Your task to perform on an android device: turn off location Image 0: 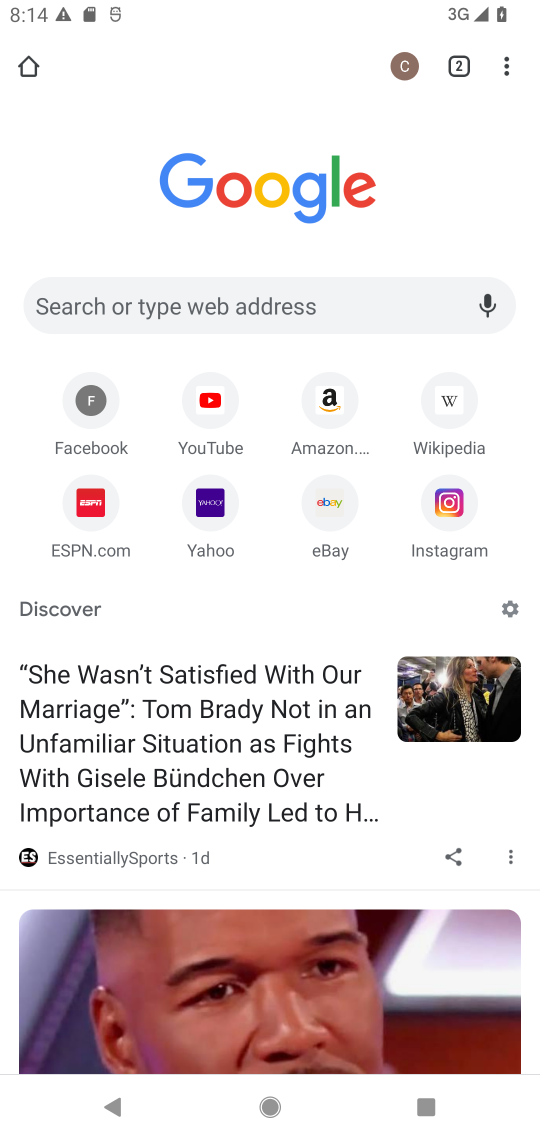
Step 0: press home button
Your task to perform on an android device: turn off location Image 1: 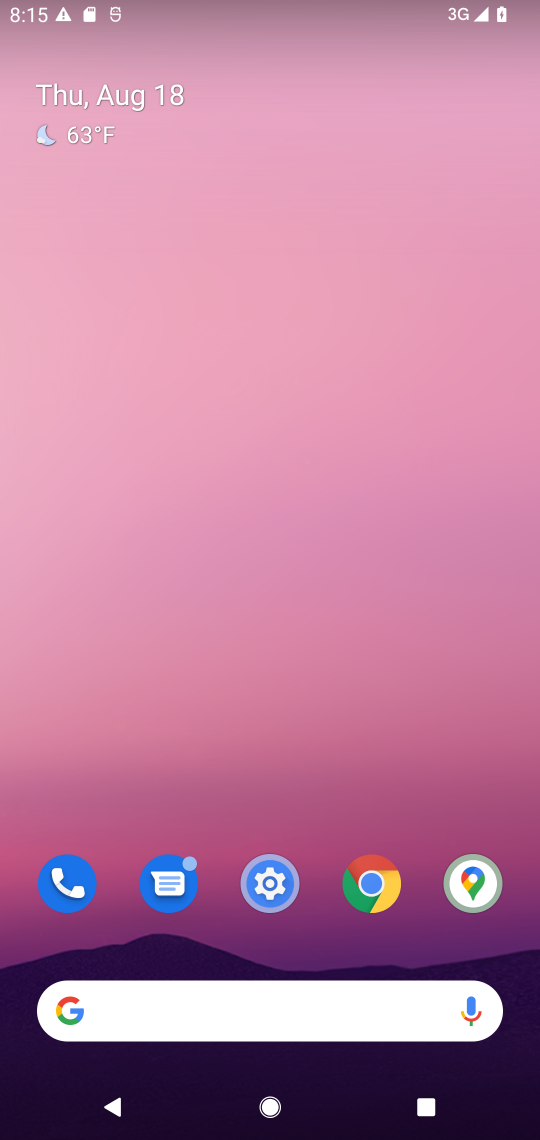
Step 1: click (269, 876)
Your task to perform on an android device: turn off location Image 2: 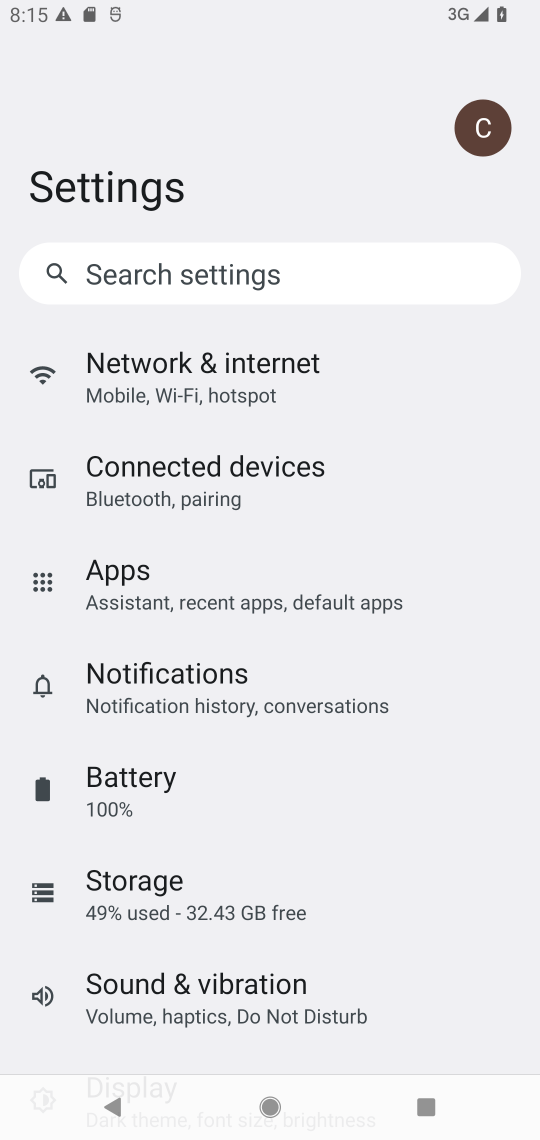
Step 2: drag from (464, 991) to (481, 219)
Your task to perform on an android device: turn off location Image 3: 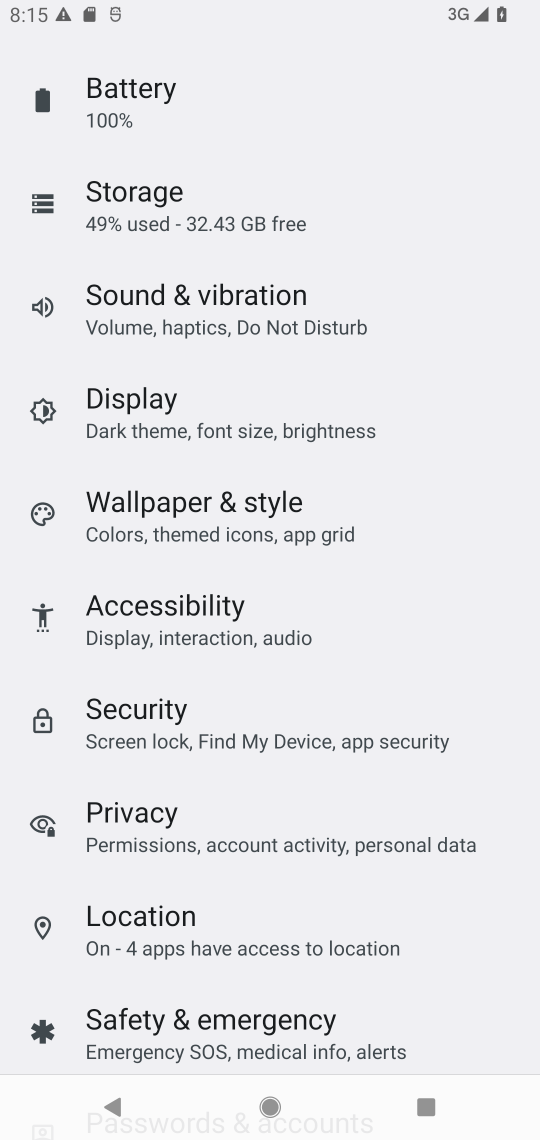
Step 3: click (173, 935)
Your task to perform on an android device: turn off location Image 4: 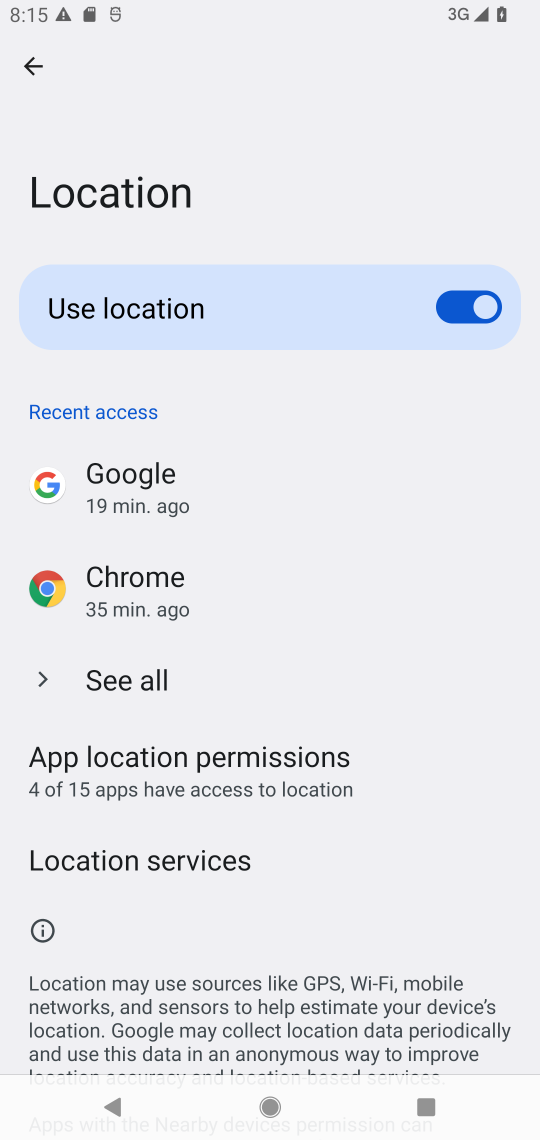
Step 4: click (487, 309)
Your task to perform on an android device: turn off location Image 5: 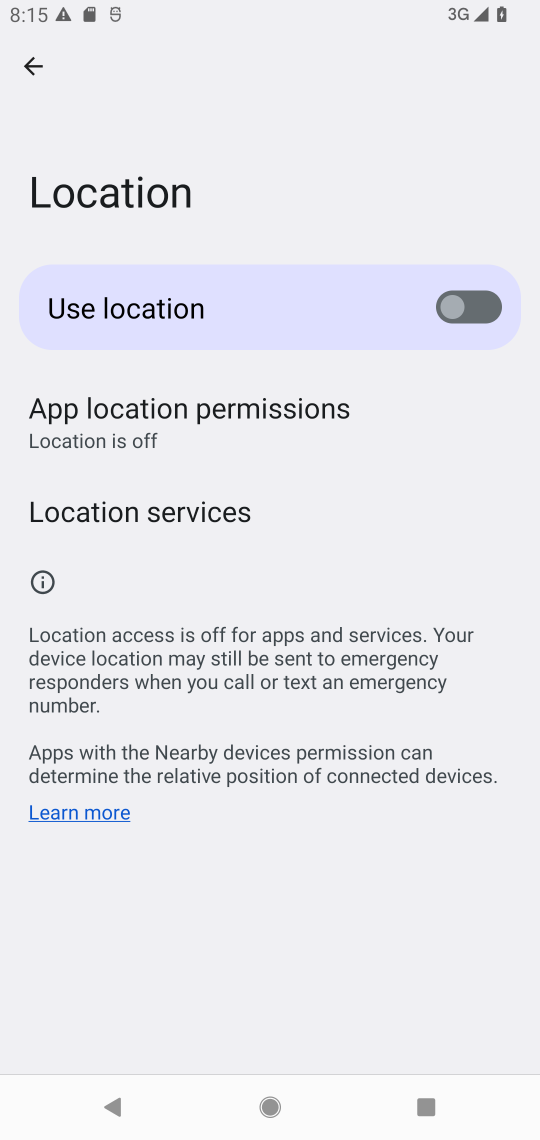
Step 5: task complete